Your task to perform on an android device: check google app version Image 0: 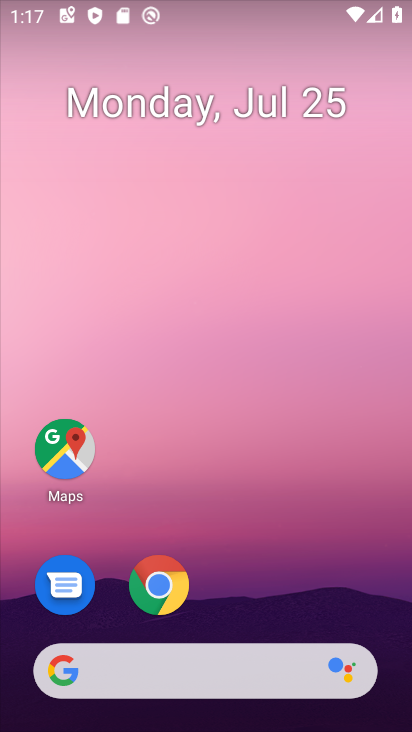
Step 0: drag from (250, 612) to (229, 0)
Your task to perform on an android device: check google app version Image 1: 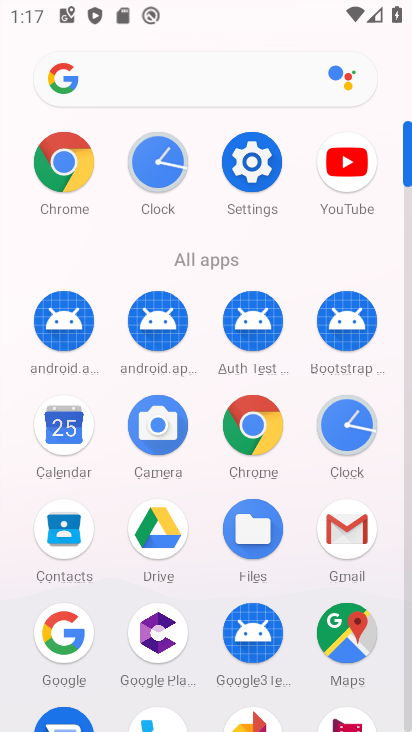
Step 1: click (65, 627)
Your task to perform on an android device: check google app version Image 2: 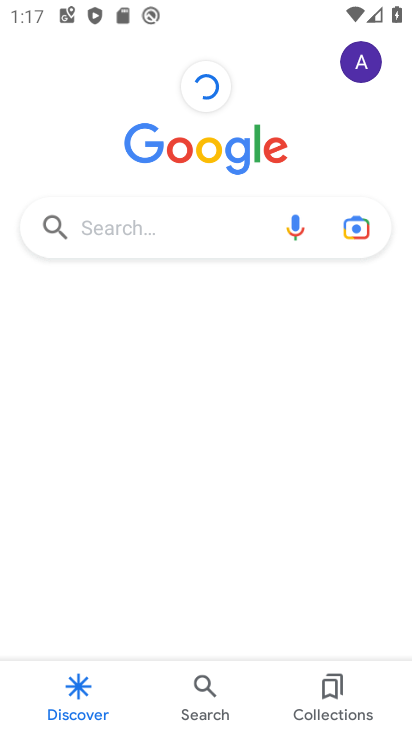
Step 2: click (357, 59)
Your task to perform on an android device: check google app version Image 3: 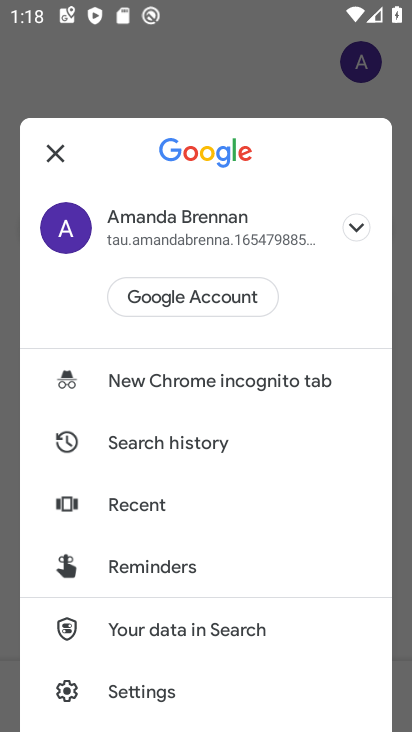
Step 3: click (157, 688)
Your task to perform on an android device: check google app version Image 4: 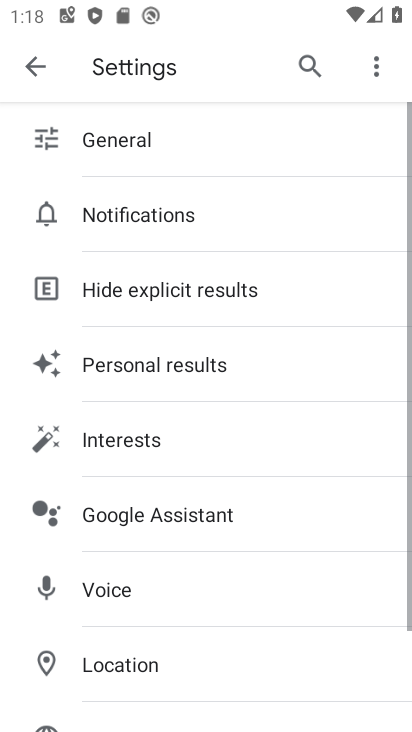
Step 4: drag from (178, 556) to (219, 145)
Your task to perform on an android device: check google app version Image 5: 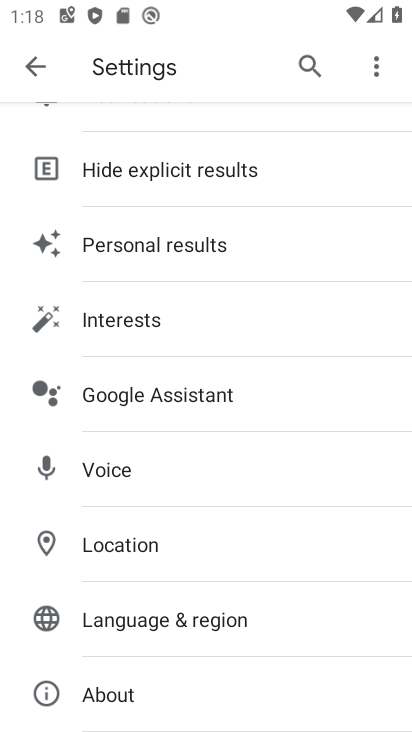
Step 5: click (124, 692)
Your task to perform on an android device: check google app version Image 6: 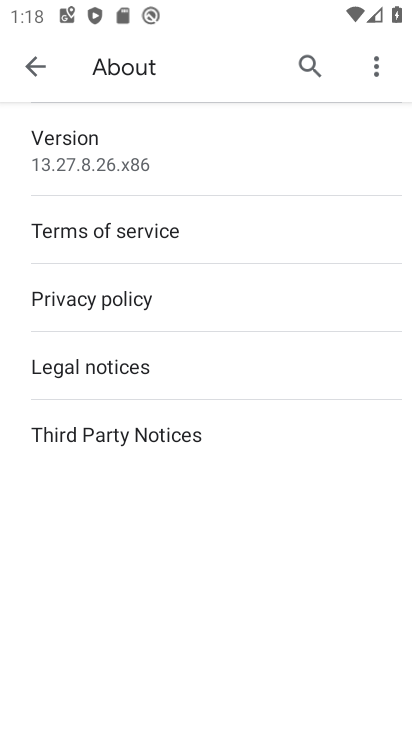
Step 6: task complete